Your task to perform on an android device: turn off priority inbox in the gmail app Image 0: 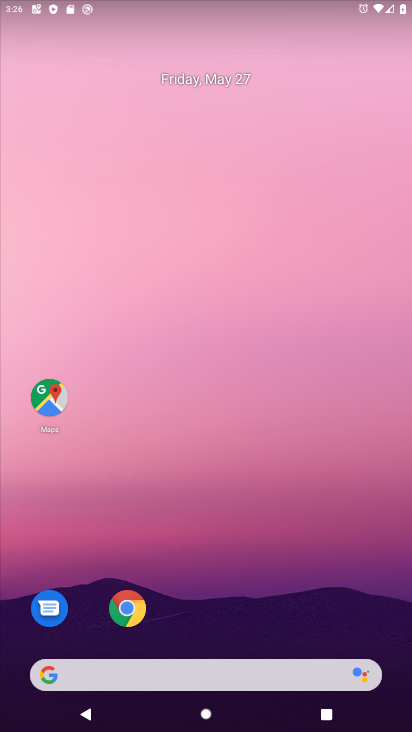
Step 0: drag from (176, 623) to (208, 295)
Your task to perform on an android device: turn off priority inbox in the gmail app Image 1: 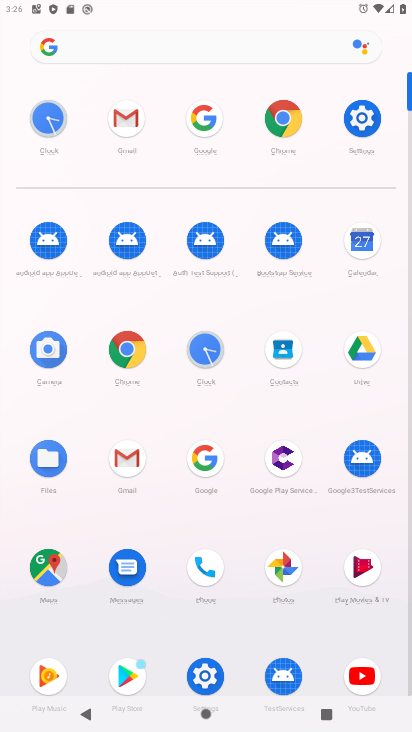
Step 1: click (138, 463)
Your task to perform on an android device: turn off priority inbox in the gmail app Image 2: 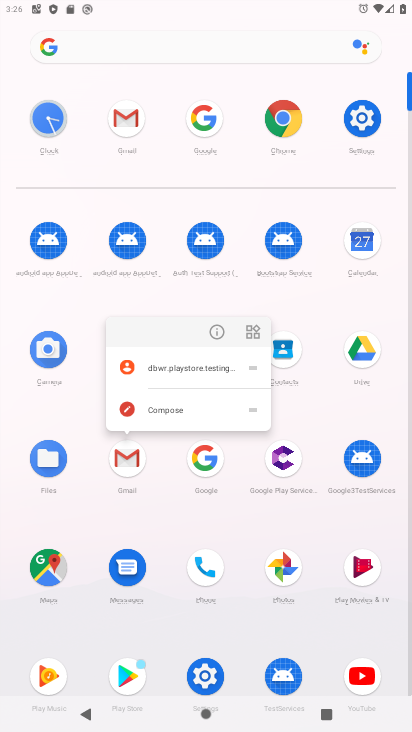
Step 2: click (126, 457)
Your task to perform on an android device: turn off priority inbox in the gmail app Image 3: 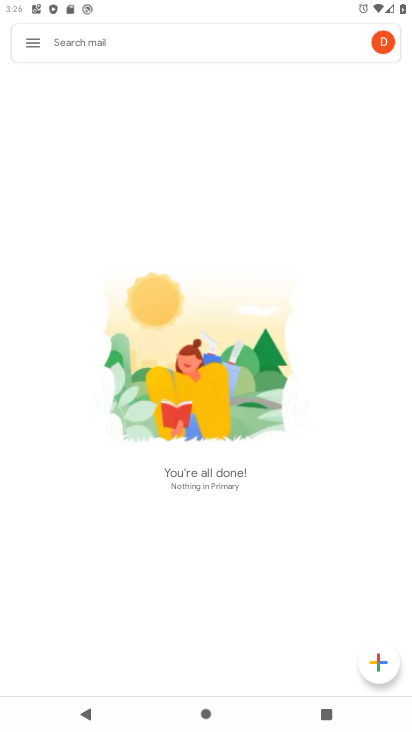
Step 3: click (30, 43)
Your task to perform on an android device: turn off priority inbox in the gmail app Image 4: 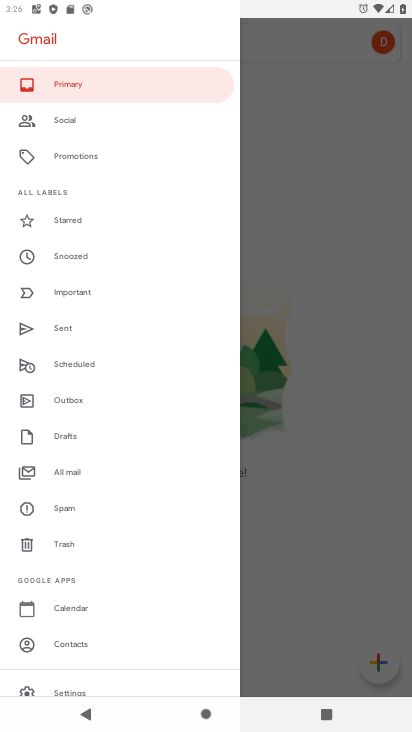
Step 4: click (79, 685)
Your task to perform on an android device: turn off priority inbox in the gmail app Image 5: 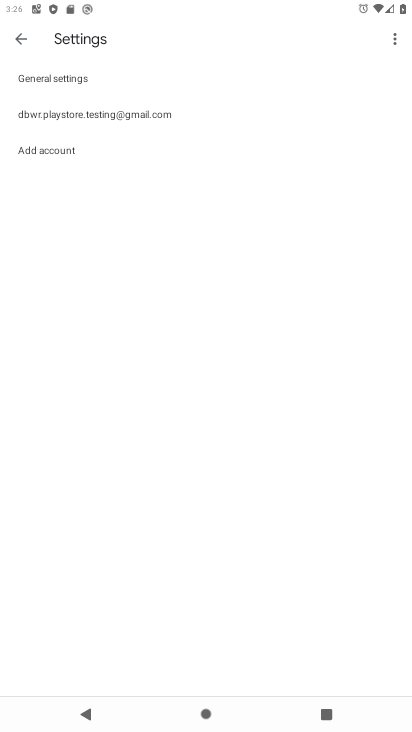
Step 5: click (100, 115)
Your task to perform on an android device: turn off priority inbox in the gmail app Image 6: 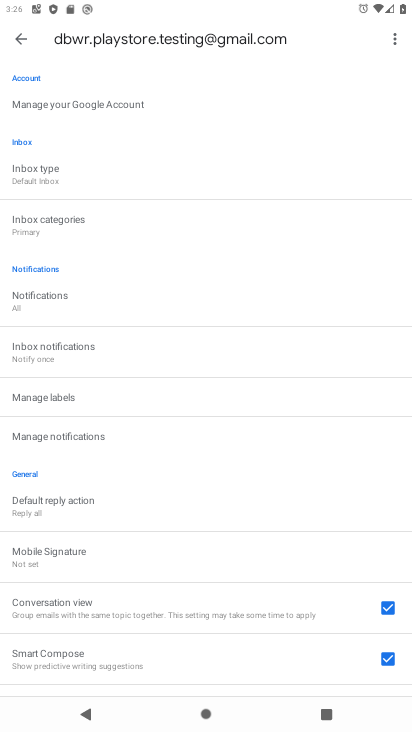
Step 6: task complete